Your task to perform on an android device: Open the Play Movies app and select the watchlist tab. Image 0: 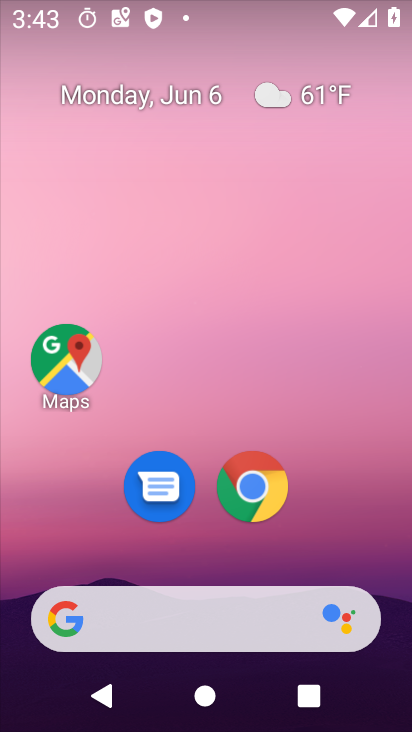
Step 0: drag from (325, 497) to (249, 140)
Your task to perform on an android device: Open the Play Movies app and select the watchlist tab. Image 1: 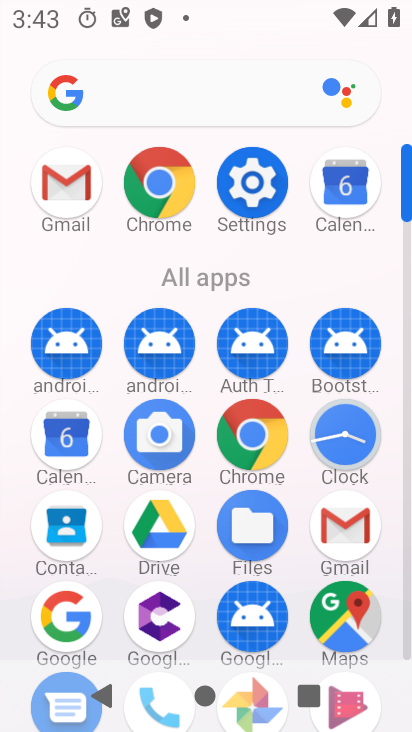
Step 1: drag from (289, 564) to (351, 206)
Your task to perform on an android device: Open the Play Movies app and select the watchlist tab. Image 2: 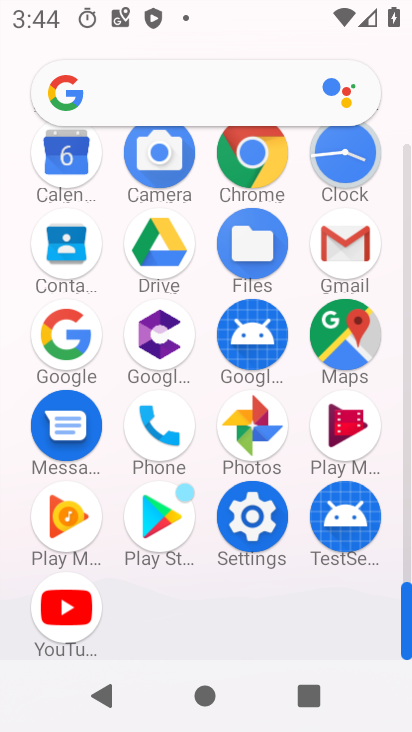
Step 2: click (177, 522)
Your task to perform on an android device: Open the Play Movies app and select the watchlist tab. Image 3: 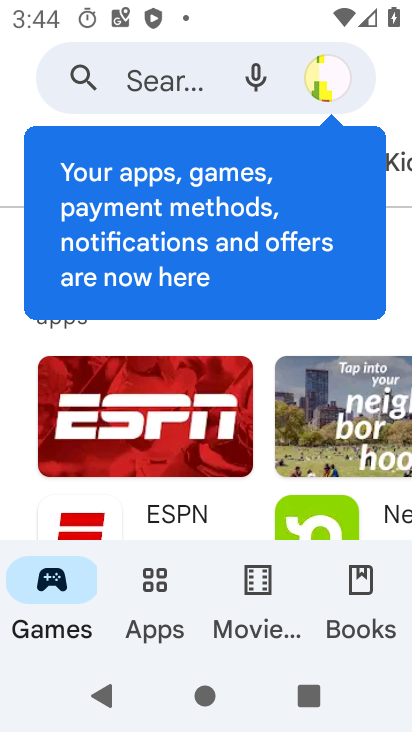
Step 3: press home button
Your task to perform on an android device: Open the Play Movies app and select the watchlist tab. Image 4: 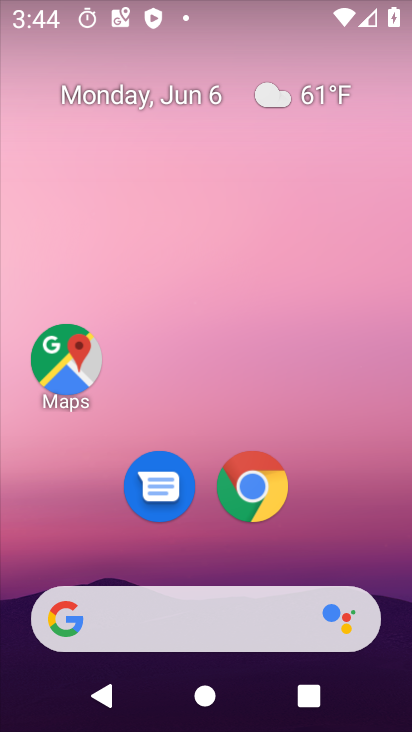
Step 4: drag from (246, 569) to (198, 165)
Your task to perform on an android device: Open the Play Movies app and select the watchlist tab. Image 5: 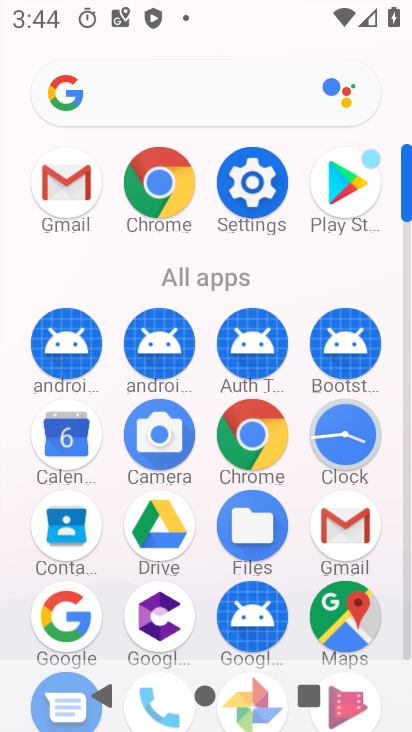
Step 5: drag from (288, 563) to (284, 365)
Your task to perform on an android device: Open the Play Movies app and select the watchlist tab. Image 6: 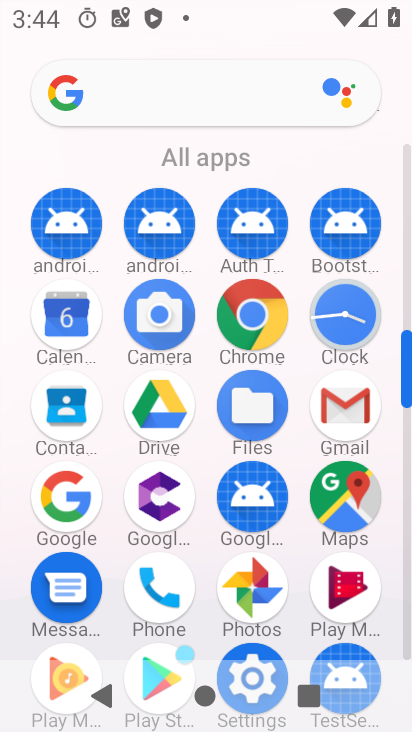
Step 6: click (328, 598)
Your task to perform on an android device: Open the Play Movies app and select the watchlist tab. Image 7: 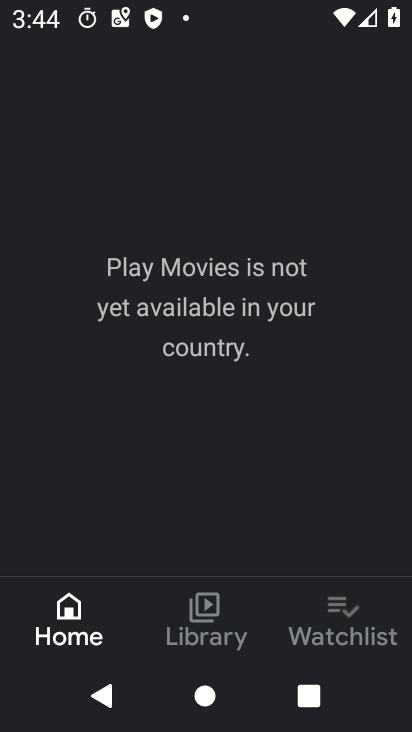
Step 7: click (367, 634)
Your task to perform on an android device: Open the Play Movies app and select the watchlist tab. Image 8: 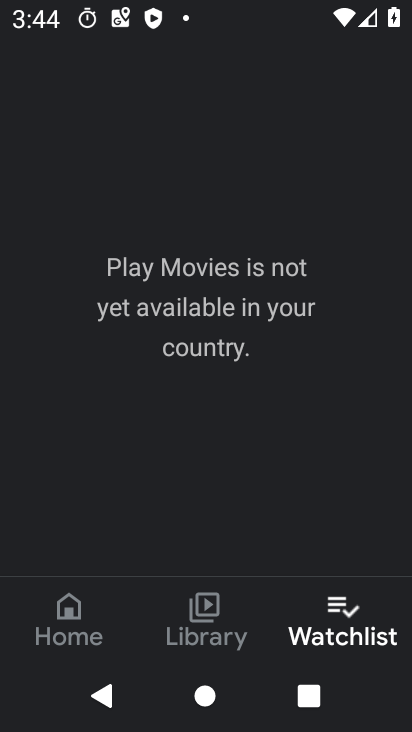
Step 8: task complete